Your task to perform on an android device: Open sound settings Image 0: 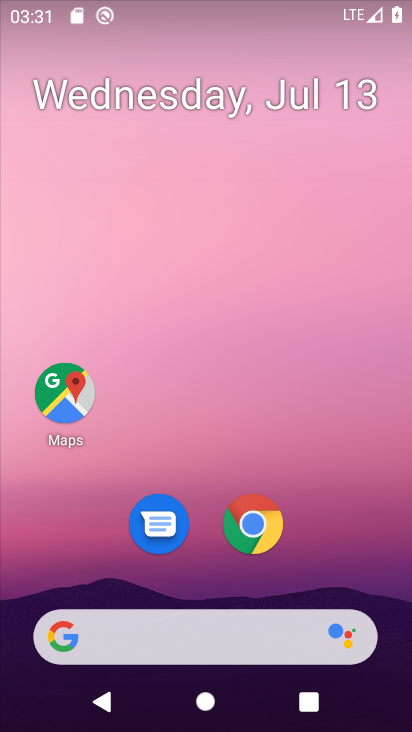
Step 0: drag from (334, 564) to (345, 58)
Your task to perform on an android device: Open sound settings Image 1: 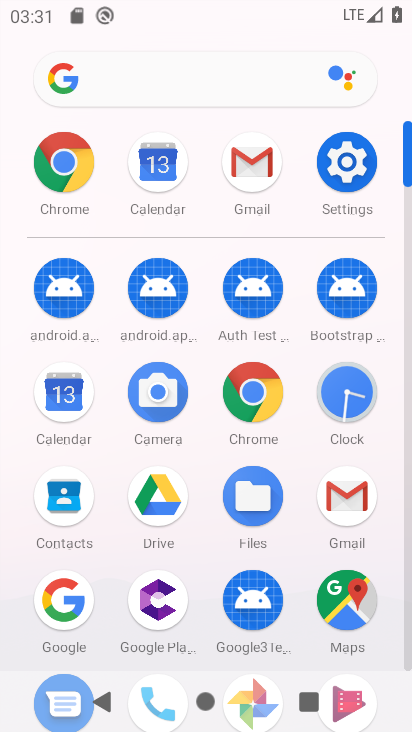
Step 1: click (344, 169)
Your task to perform on an android device: Open sound settings Image 2: 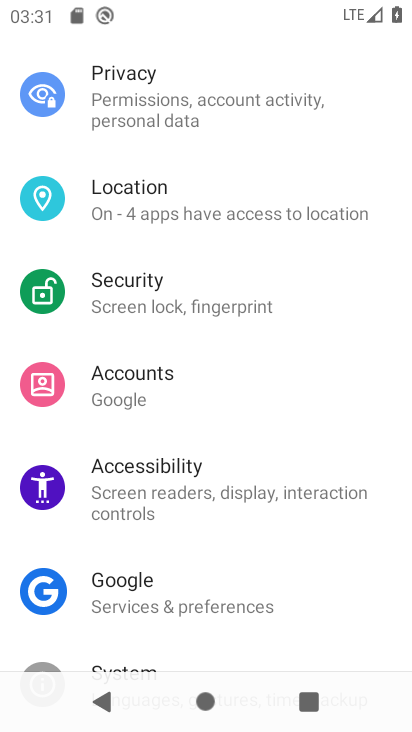
Step 2: drag from (262, 163) to (264, 596)
Your task to perform on an android device: Open sound settings Image 3: 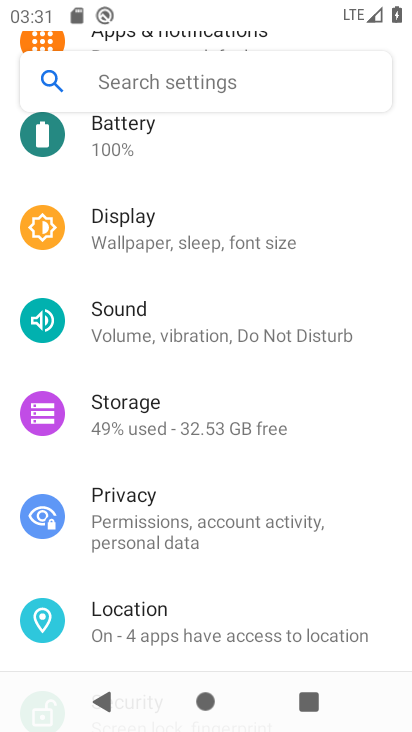
Step 3: click (198, 325)
Your task to perform on an android device: Open sound settings Image 4: 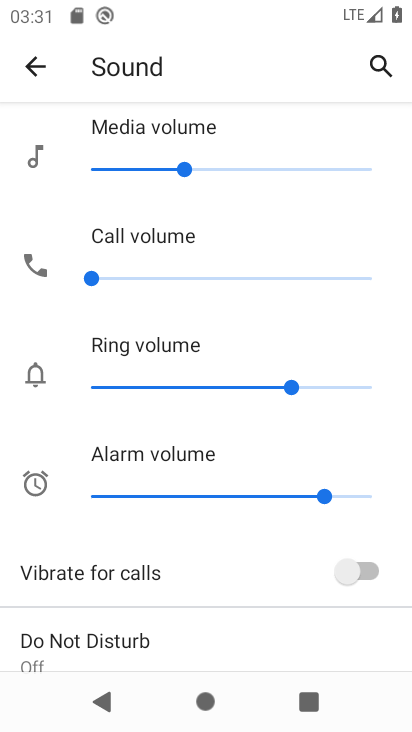
Step 4: task complete